Your task to perform on an android device: manage bookmarks in the chrome app Image 0: 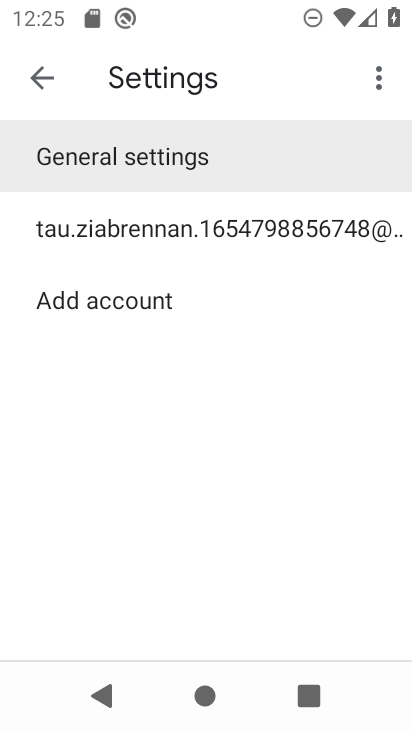
Step 0: press back button
Your task to perform on an android device: manage bookmarks in the chrome app Image 1: 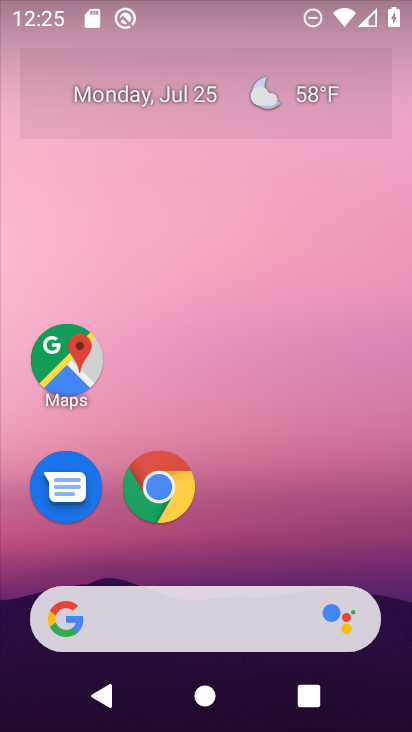
Step 1: click (170, 501)
Your task to perform on an android device: manage bookmarks in the chrome app Image 2: 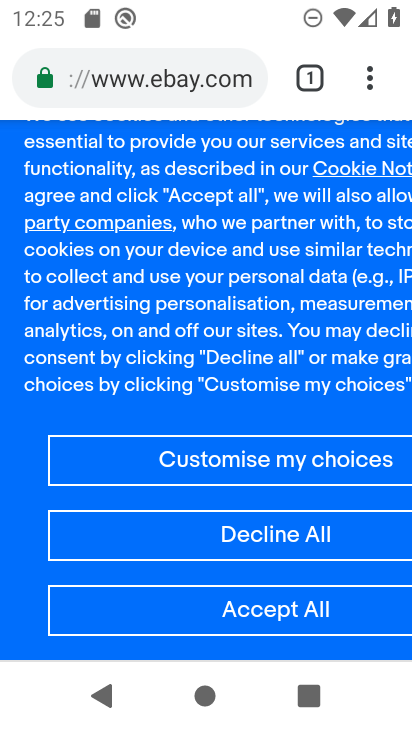
Step 2: drag from (373, 73) to (137, 293)
Your task to perform on an android device: manage bookmarks in the chrome app Image 3: 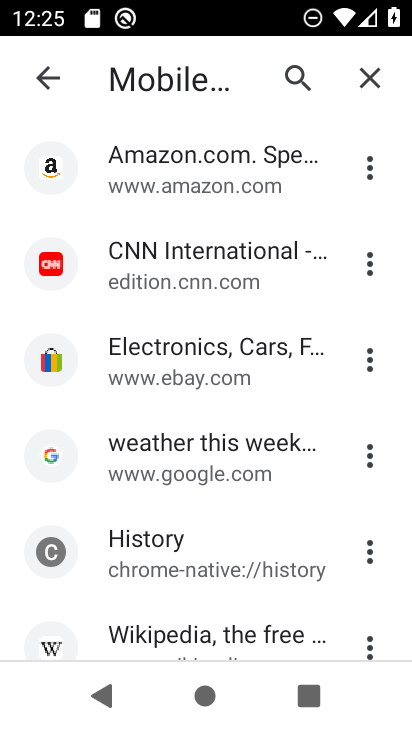
Step 3: click (378, 255)
Your task to perform on an android device: manage bookmarks in the chrome app Image 4: 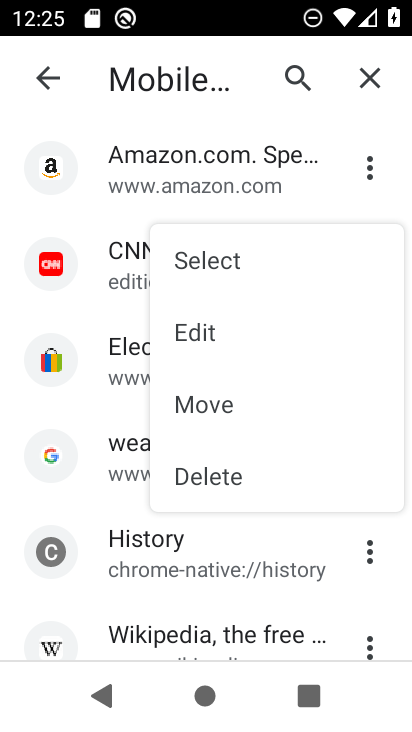
Step 4: click (223, 474)
Your task to perform on an android device: manage bookmarks in the chrome app Image 5: 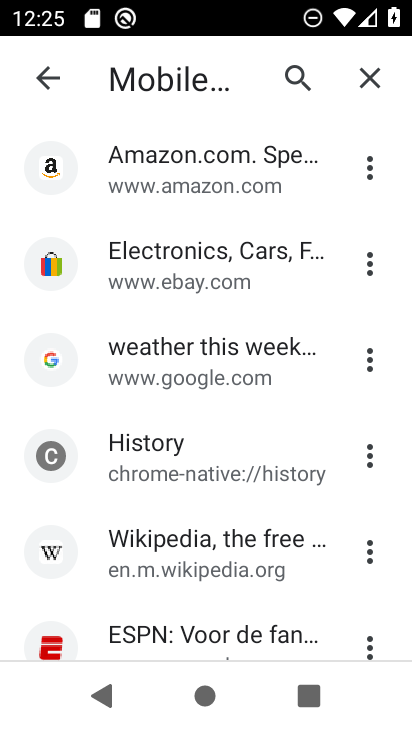
Step 5: task complete